Your task to perform on an android device: Go to ESPN.com Image 0: 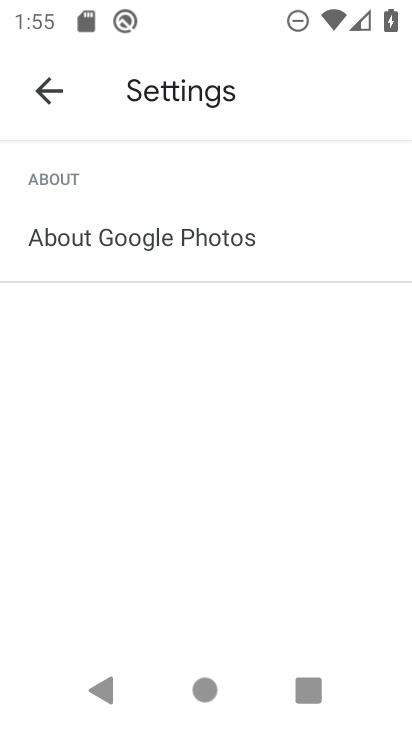
Step 0: press home button
Your task to perform on an android device: Go to ESPN.com Image 1: 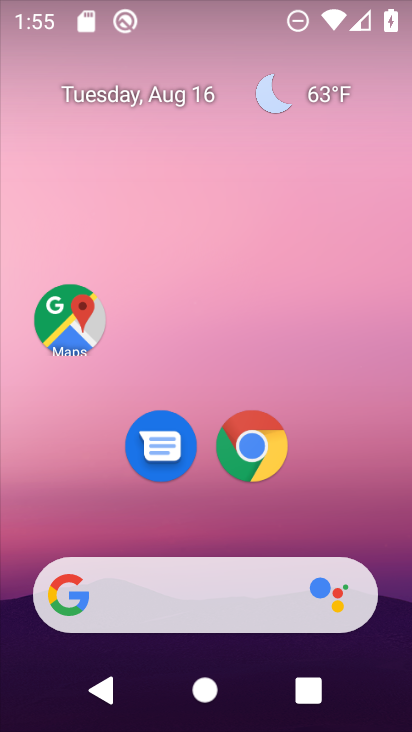
Step 1: click (249, 440)
Your task to perform on an android device: Go to ESPN.com Image 2: 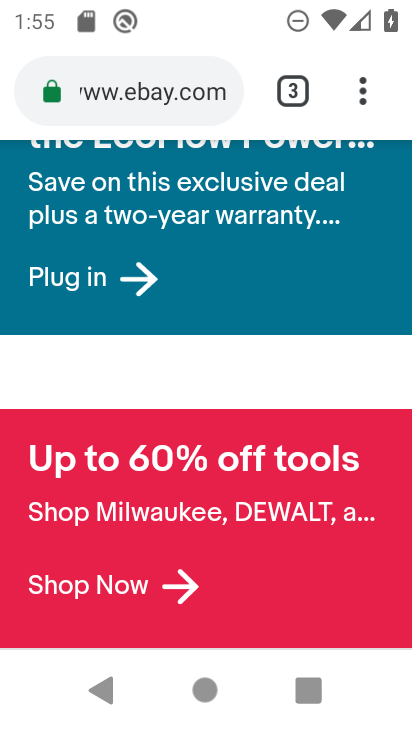
Step 2: click (290, 89)
Your task to perform on an android device: Go to ESPN.com Image 3: 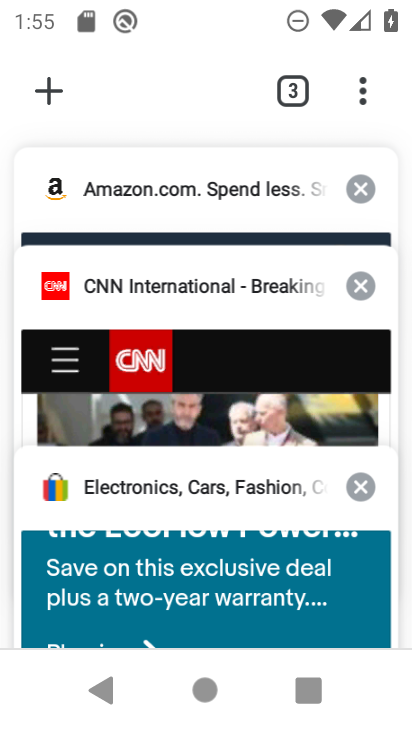
Step 3: click (45, 98)
Your task to perform on an android device: Go to ESPN.com Image 4: 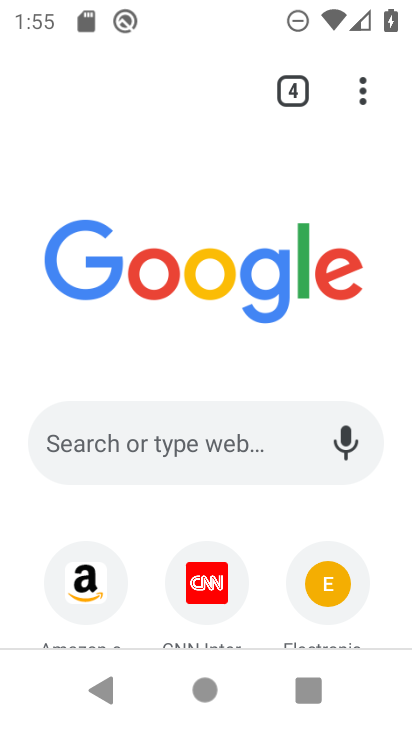
Step 4: click (133, 438)
Your task to perform on an android device: Go to ESPN.com Image 5: 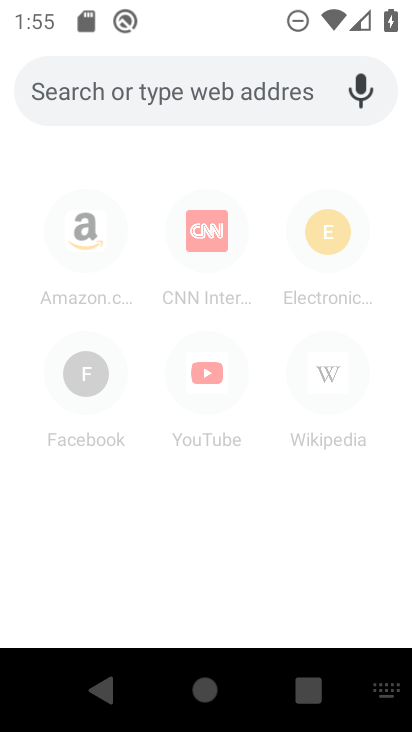
Step 5: type "espn.com"
Your task to perform on an android device: Go to ESPN.com Image 6: 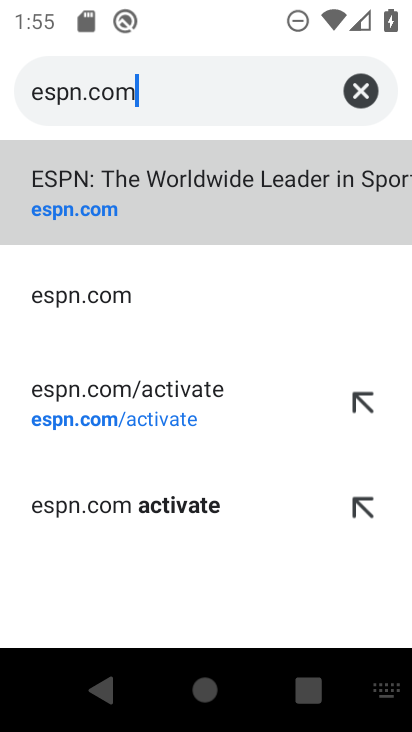
Step 6: click (149, 205)
Your task to perform on an android device: Go to ESPN.com Image 7: 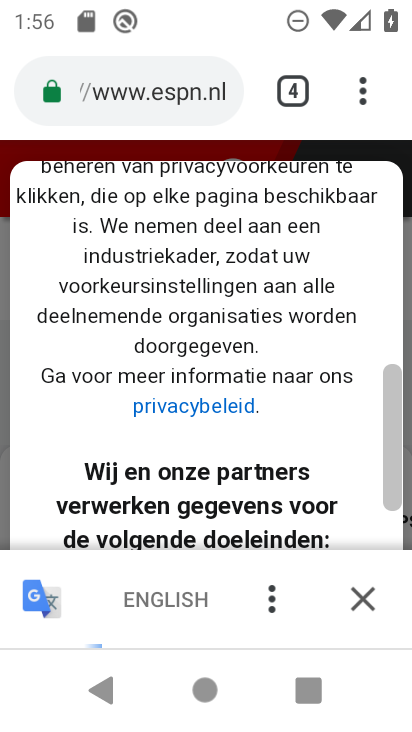
Step 7: click (359, 589)
Your task to perform on an android device: Go to ESPN.com Image 8: 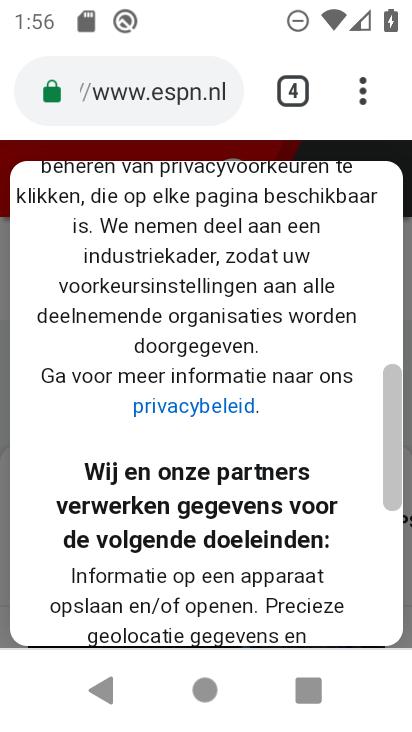
Step 8: drag from (221, 570) to (235, 143)
Your task to perform on an android device: Go to ESPN.com Image 9: 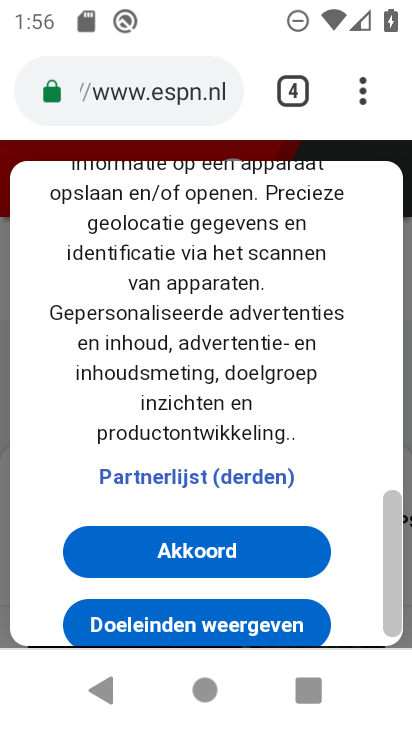
Step 9: click (199, 544)
Your task to perform on an android device: Go to ESPN.com Image 10: 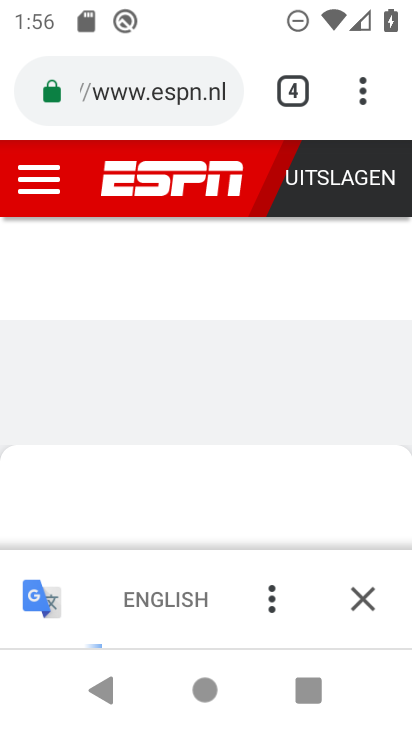
Step 10: click (363, 600)
Your task to perform on an android device: Go to ESPN.com Image 11: 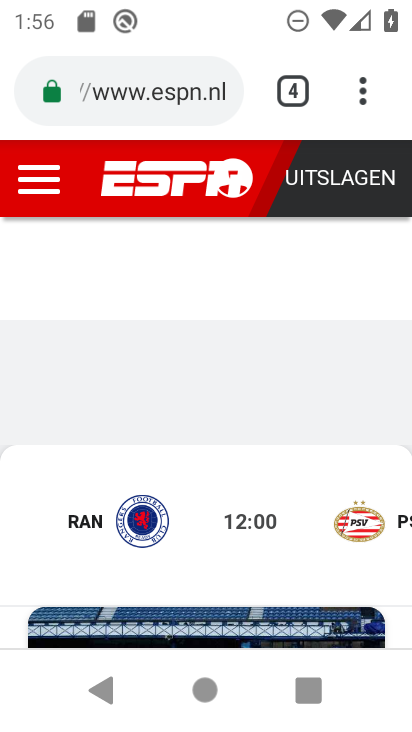
Step 11: task complete